Your task to perform on an android device: Search for seafood restaurants on Google Maps Image 0: 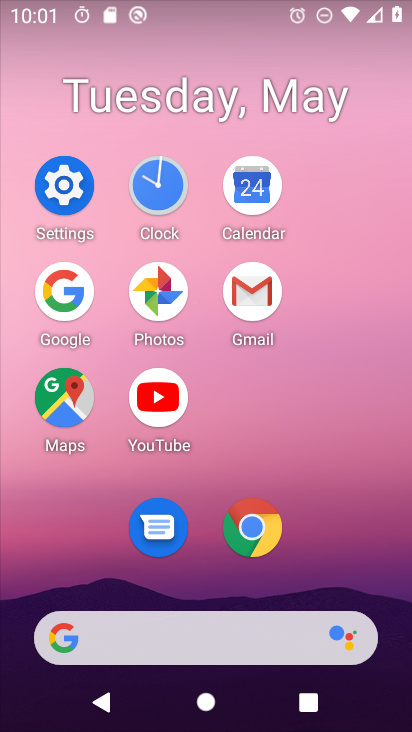
Step 0: click (77, 398)
Your task to perform on an android device: Search for seafood restaurants on Google Maps Image 1: 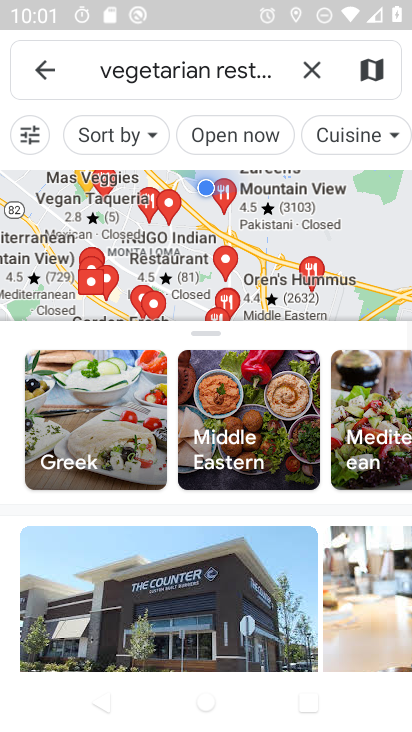
Step 1: click (312, 70)
Your task to perform on an android device: Search for seafood restaurants on Google Maps Image 2: 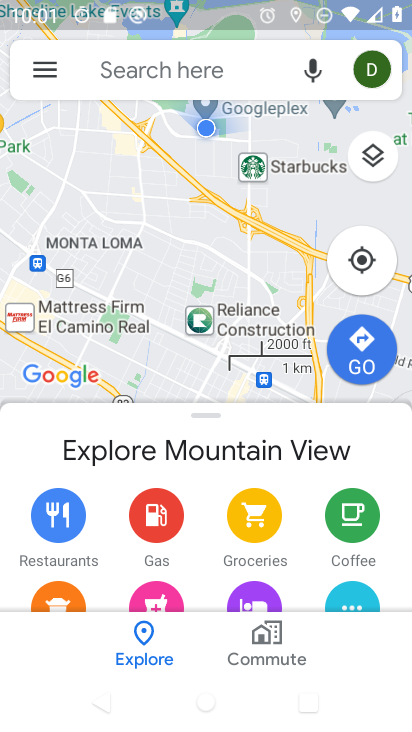
Step 2: click (166, 78)
Your task to perform on an android device: Search for seafood restaurants on Google Maps Image 3: 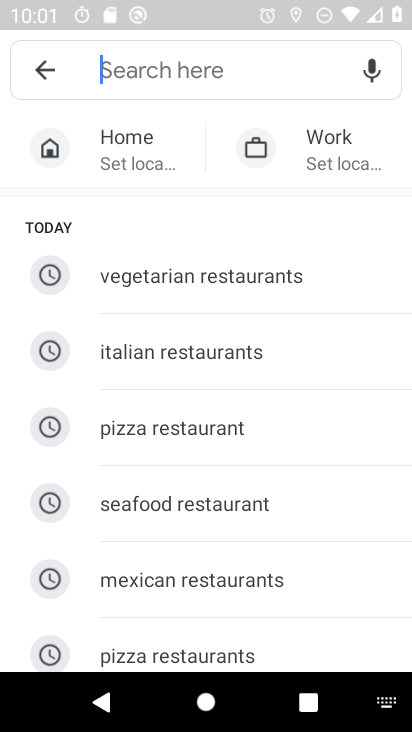
Step 3: click (217, 515)
Your task to perform on an android device: Search for seafood restaurants on Google Maps Image 4: 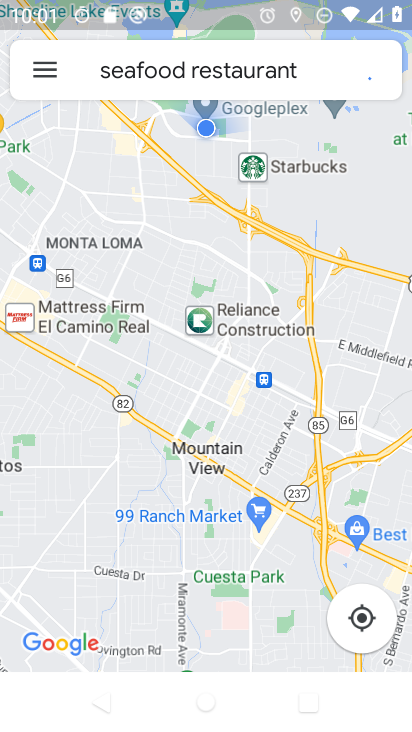
Step 4: task complete